Your task to perform on an android device: Open Google Chrome and open the bookmarks view Image 0: 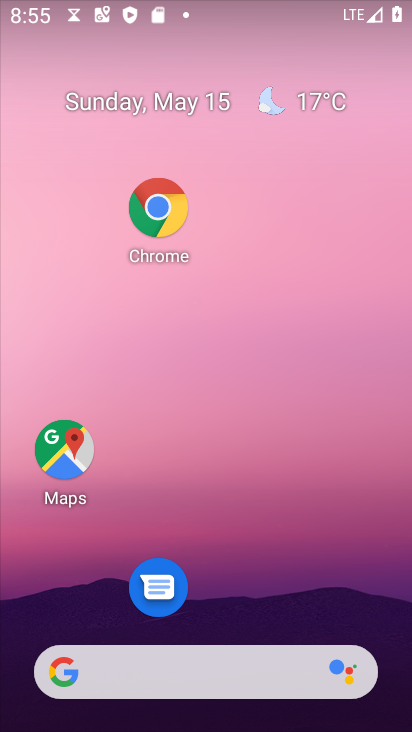
Step 0: drag from (241, 446) to (154, 67)
Your task to perform on an android device: Open Google Chrome and open the bookmarks view Image 1: 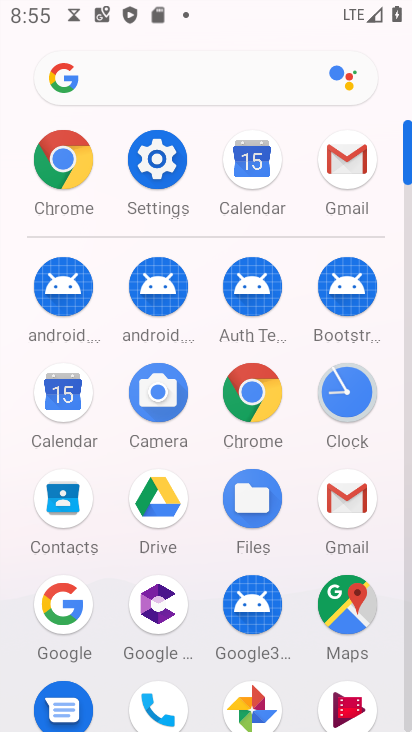
Step 1: click (71, 156)
Your task to perform on an android device: Open Google Chrome and open the bookmarks view Image 2: 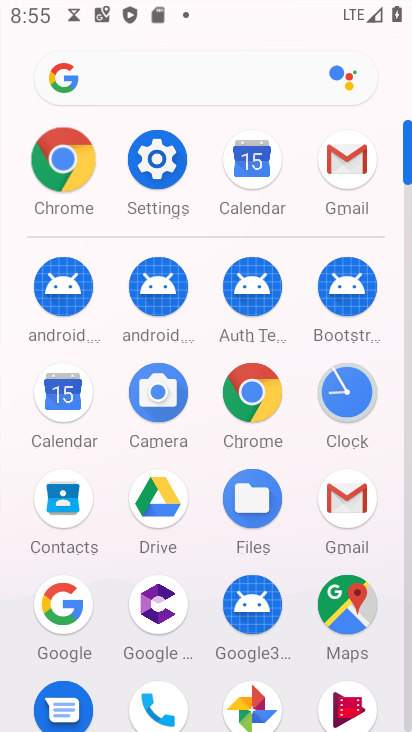
Step 2: click (71, 156)
Your task to perform on an android device: Open Google Chrome and open the bookmarks view Image 3: 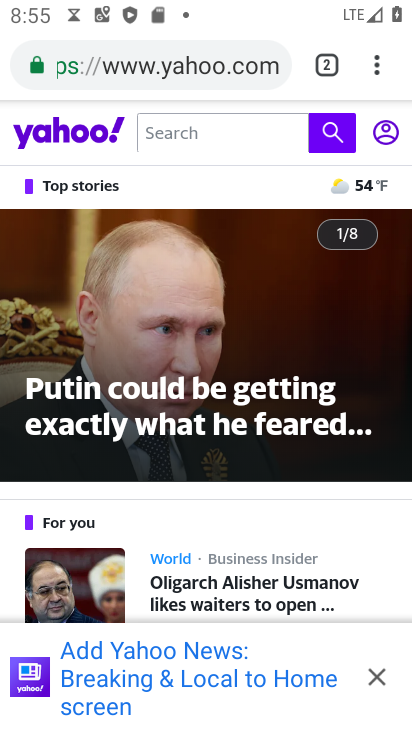
Step 3: click (378, 70)
Your task to perform on an android device: Open Google Chrome and open the bookmarks view Image 4: 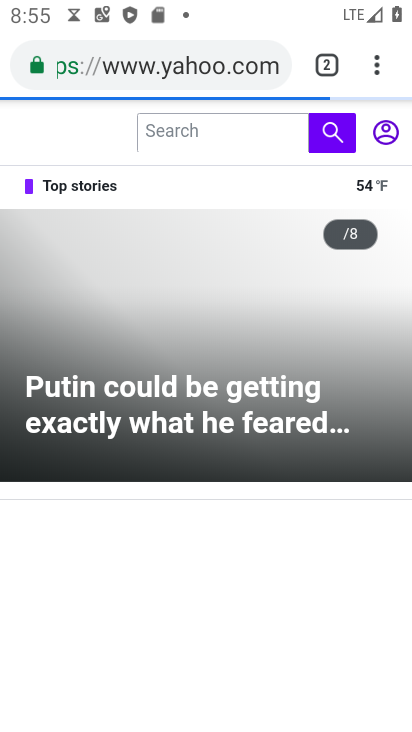
Step 4: click (372, 58)
Your task to perform on an android device: Open Google Chrome and open the bookmarks view Image 5: 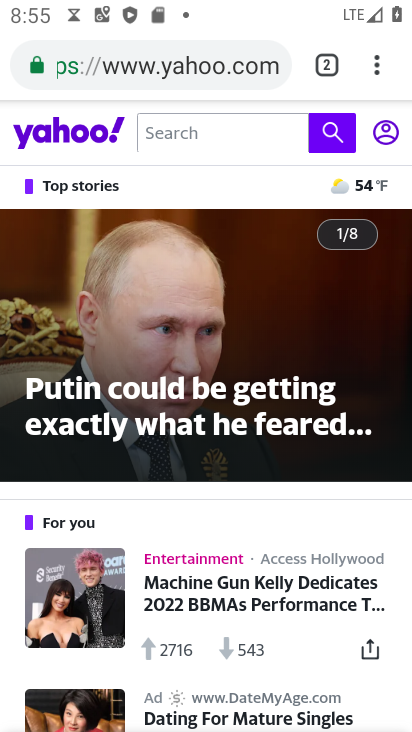
Step 5: click (380, 67)
Your task to perform on an android device: Open Google Chrome and open the bookmarks view Image 6: 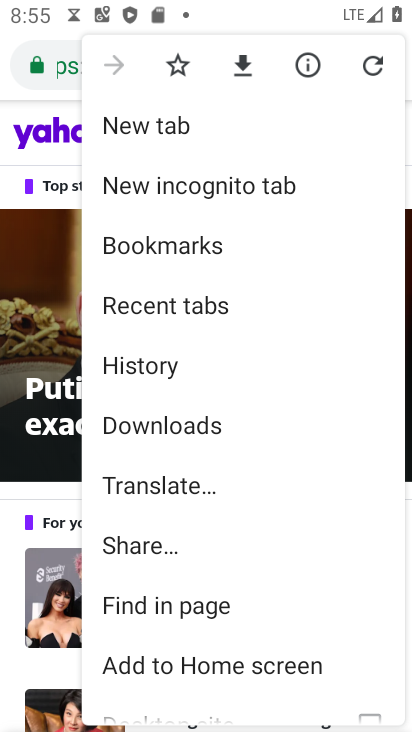
Step 6: drag from (217, 683) to (282, 149)
Your task to perform on an android device: Open Google Chrome and open the bookmarks view Image 7: 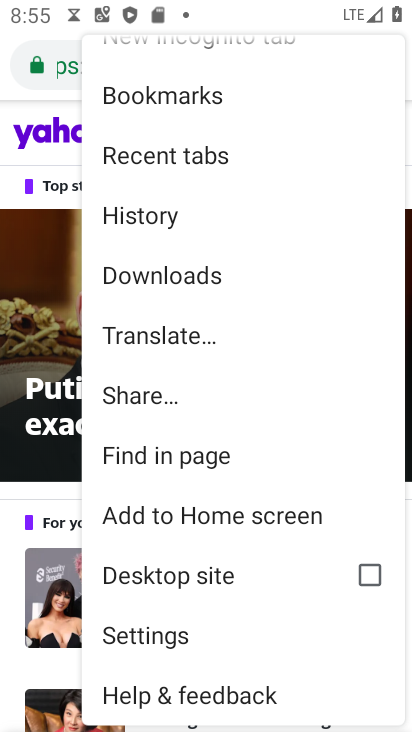
Step 7: drag from (138, 228) to (207, 558)
Your task to perform on an android device: Open Google Chrome and open the bookmarks view Image 8: 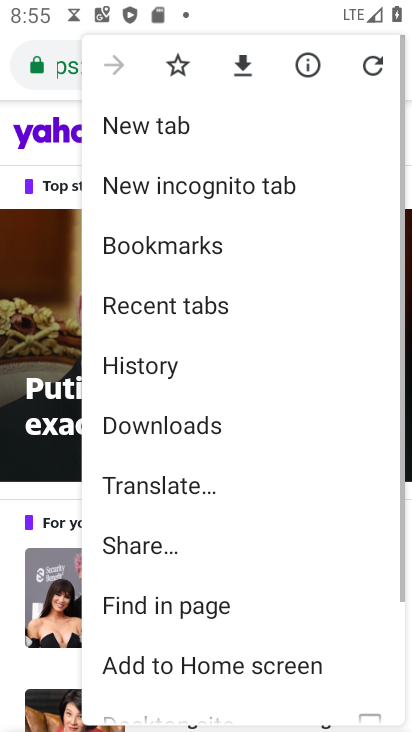
Step 8: click (144, 110)
Your task to perform on an android device: Open Google Chrome and open the bookmarks view Image 9: 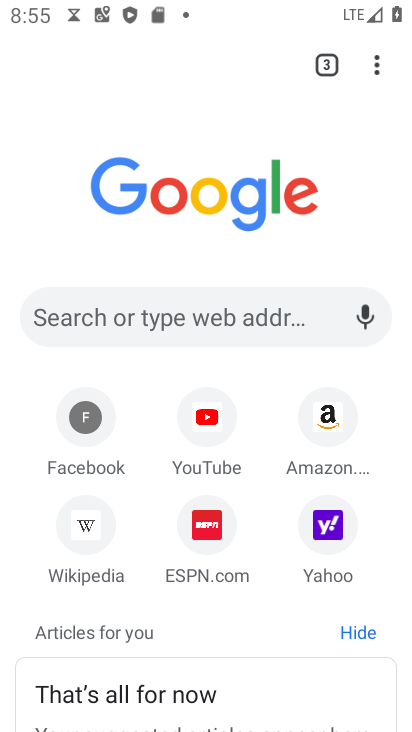
Step 9: click (377, 63)
Your task to perform on an android device: Open Google Chrome and open the bookmarks view Image 10: 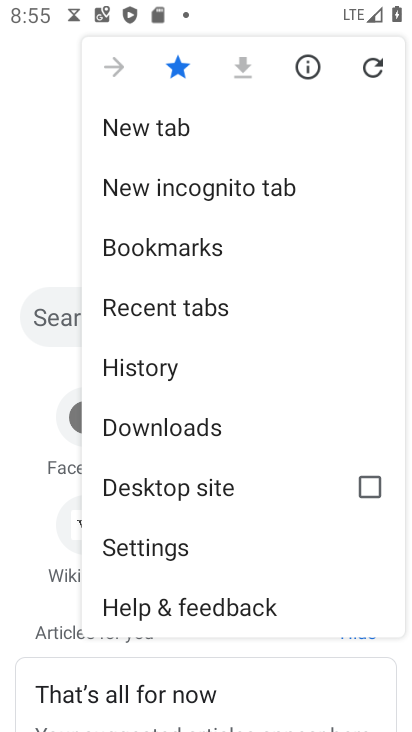
Step 10: click (143, 252)
Your task to perform on an android device: Open Google Chrome and open the bookmarks view Image 11: 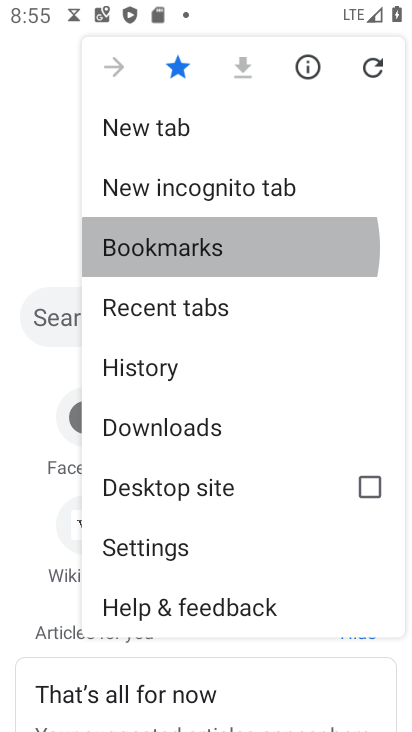
Step 11: click (149, 249)
Your task to perform on an android device: Open Google Chrome and open the bookmarks view Image 12: 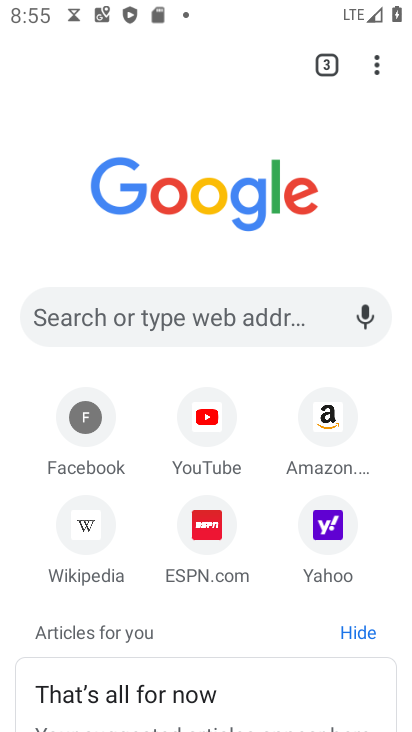
Step 12: click (149, 258)
Your task to perform on an android device: Open Google Chrome and open the bookmarks view Image 13: 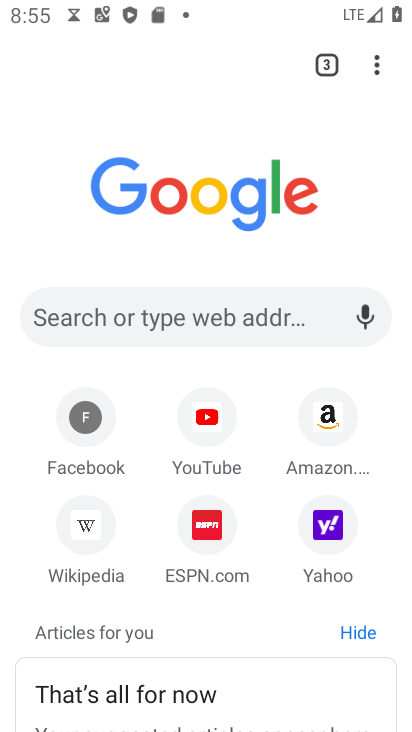
Step 13: click (147, 268)
Your task to perform on an android device: Open Google Chrome and open the bookmarks view Image 14: 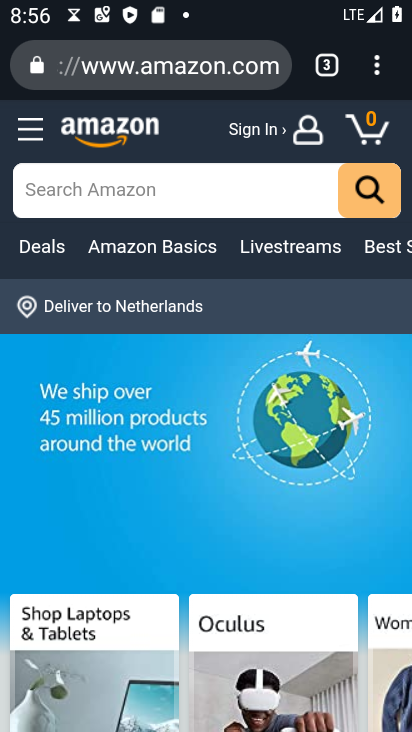
Step 14: task complete